Your task to perform on an android device: Open Google Image 0: 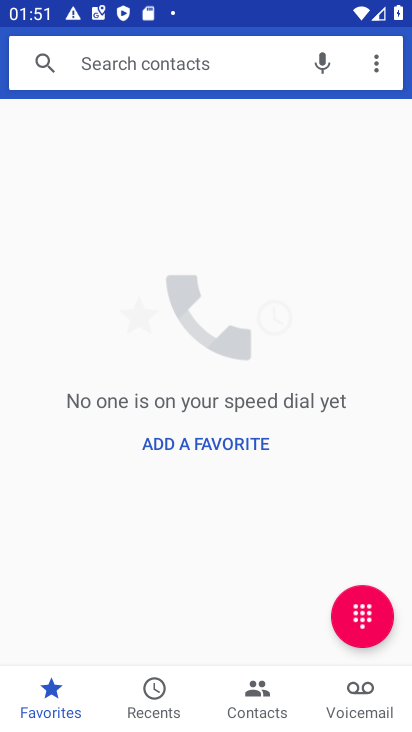
Step 0: press home button
Your task to perform on an android device: Open Google Image 1: 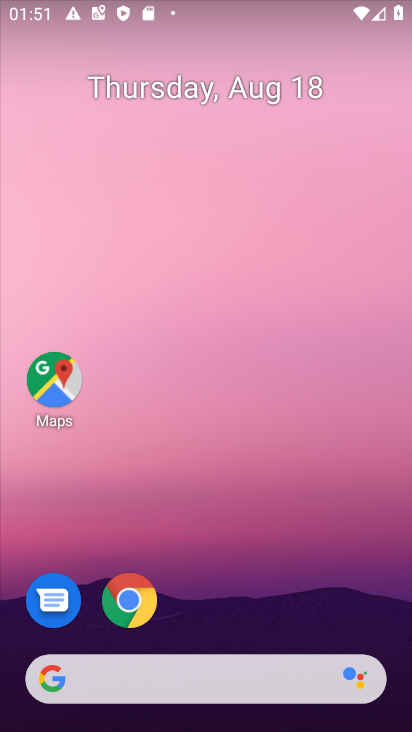
Step 1: drag from (280, 617) to (380, 279)
Your task to perform on an android device: Open Google Image 2: 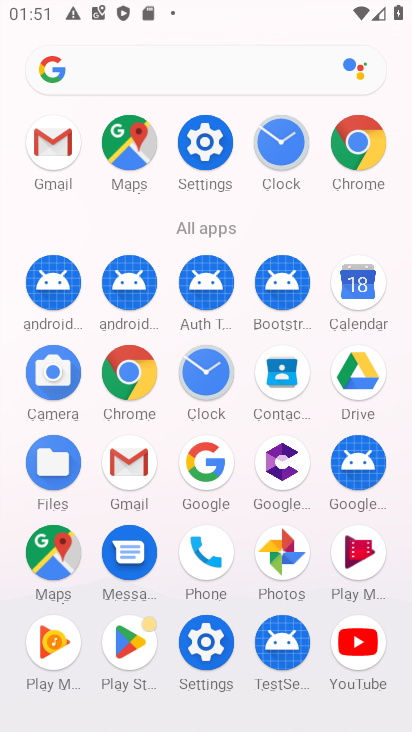
Step 2: click (208, 460)
Your task to perform on an android device: Open Google Image 3: 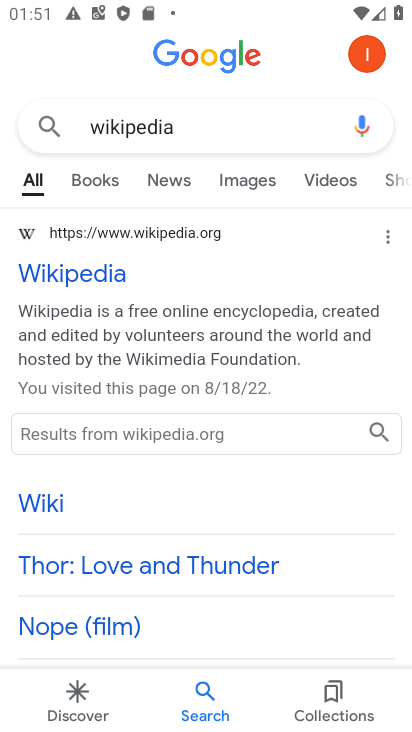
Step 3: click (211, 46)
Your task to perform on an android device: Open Google Image 4: 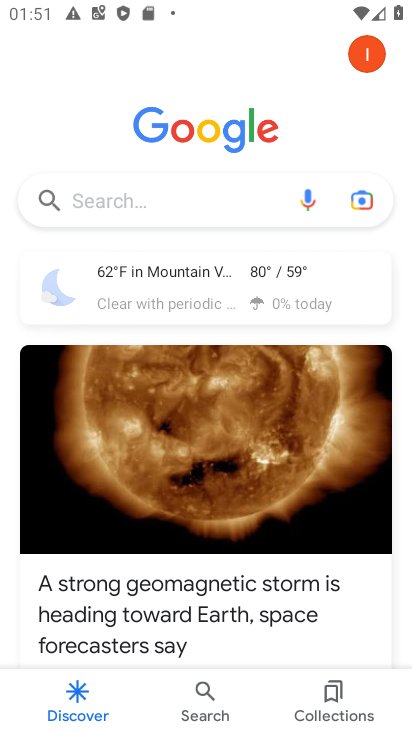
Step 4: task complete